Your task to perform on an android device: open chrome privacy settings Image 0: 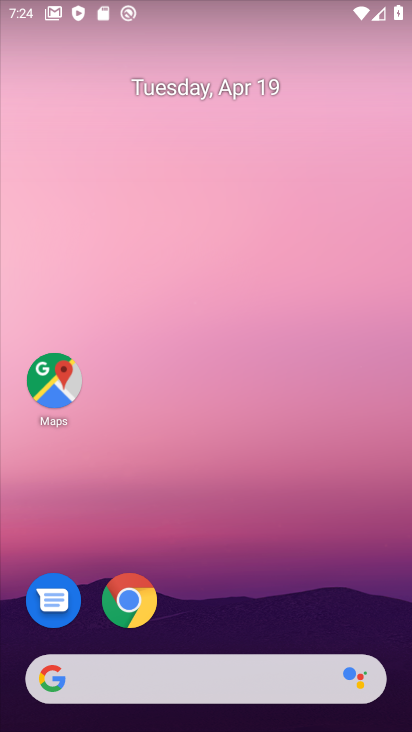
Step 0: drag from (283, 625) to (316, 36)
Your task to perform on an android device: open chrome privacy settings Image 1: 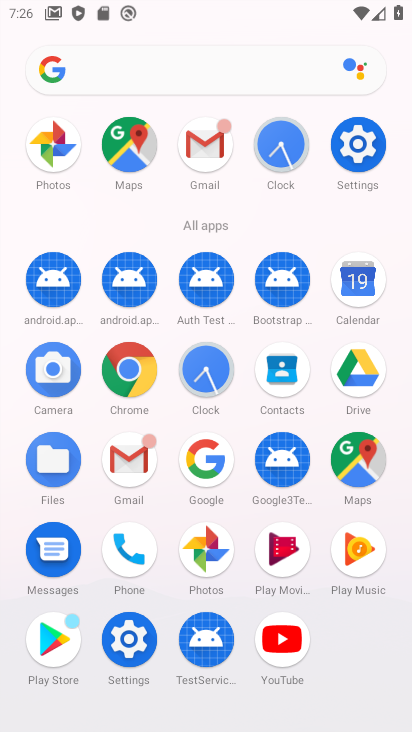
Step 1: click (134, 374)
Your task to perform on an android device: open chrome privacy settings Image 2: 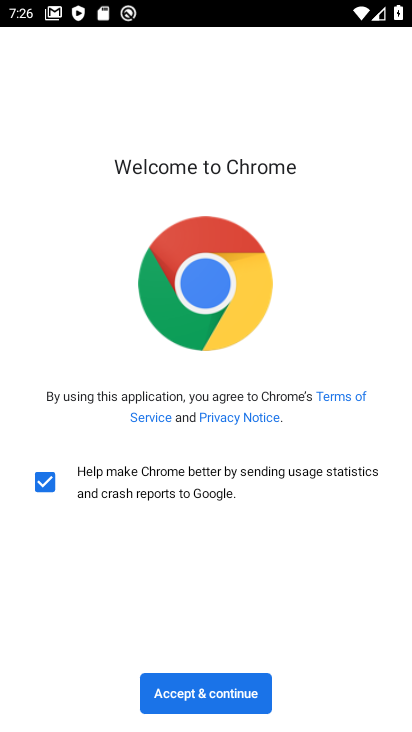
Step 2: click (232, 683)
Your task to perform on an android device: open chrome privacy settings Image 3: 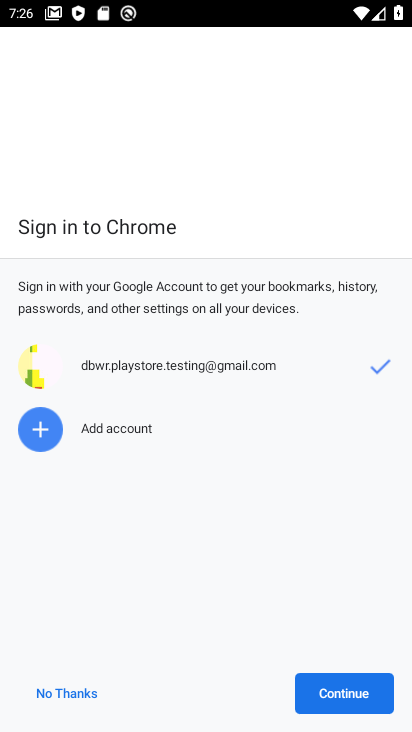
Step 3: click (353, 693)
Your task to perform on an android device: open chrome privacy settings Image 4: 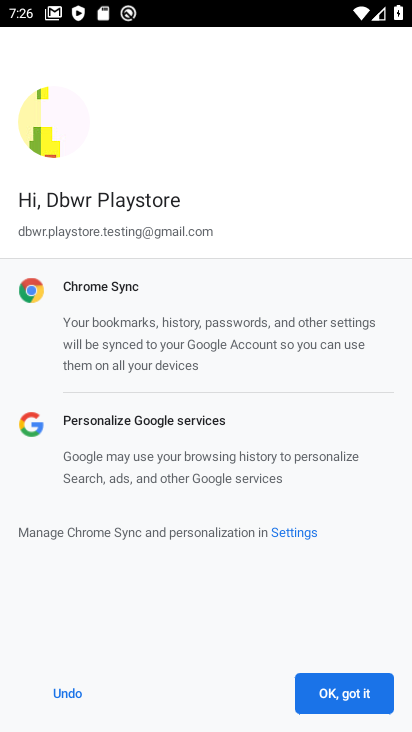
Step 4: click (353, 693)
Your task to perform on an android device: open chrome privacy settings Image 5: 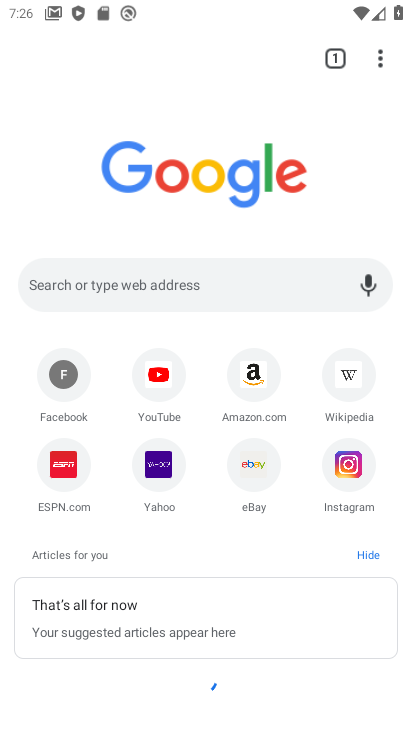
Step 5: click (380, 52)
Your task to perform on an android device: open chrome privacy settings Image 6: 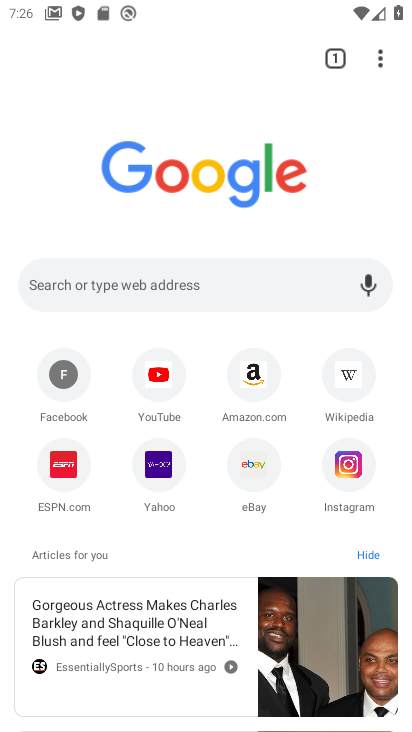
Step 6: click (374, 58)
Your task to perform on an android device: open chrome privacy settings Image 7: 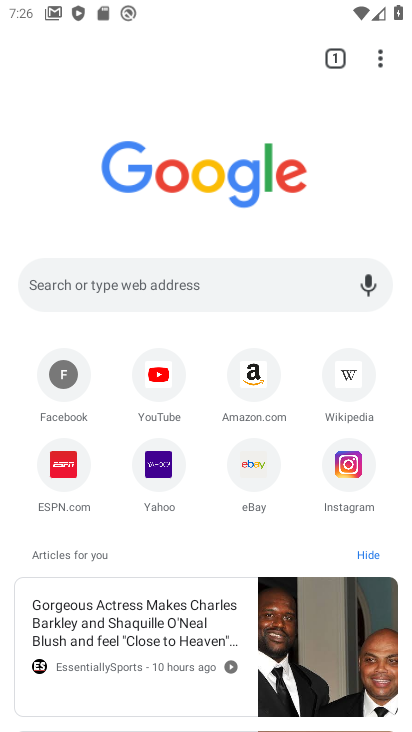
Step 7: click (380, 53)
Your task to perform on an android device: open chrome privacy settings Image 8: 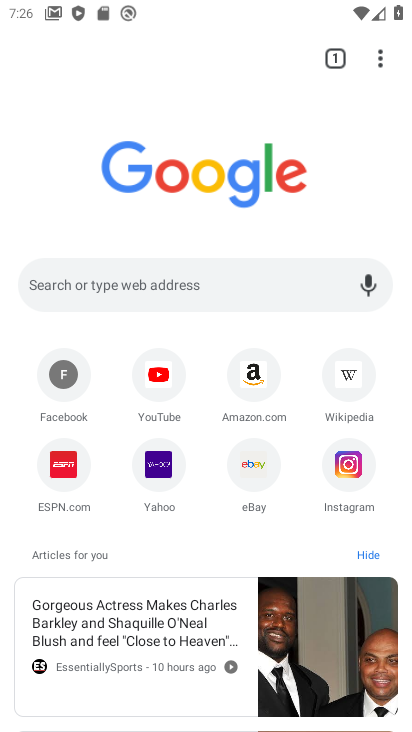
Step 8: click (380, 53)
Your task to perform on an android device: open chrome privacy settings Image 9: 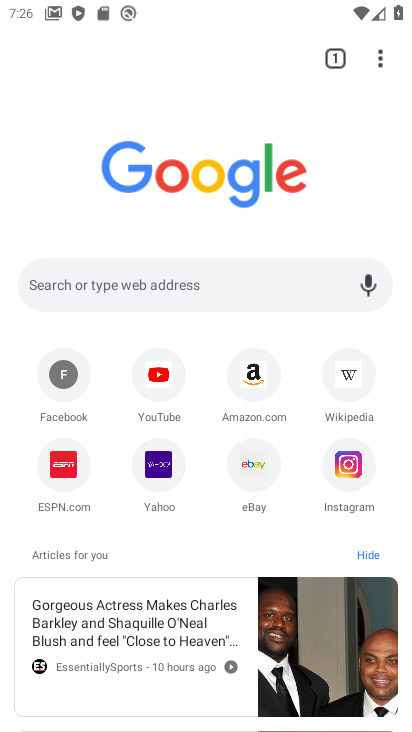
Step 9: click (380, 53)
Your task to perform on an android device: open chrome privacy settings Image 10: 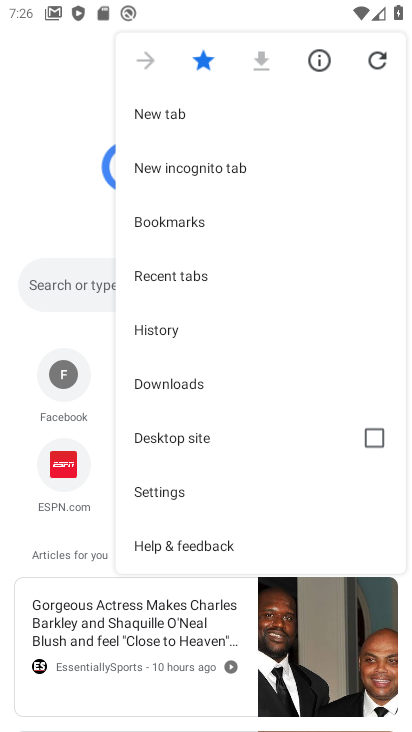
Step 10: click (185, 483)
Your task to perform on an android device: open chrome privacy settings Image 11: 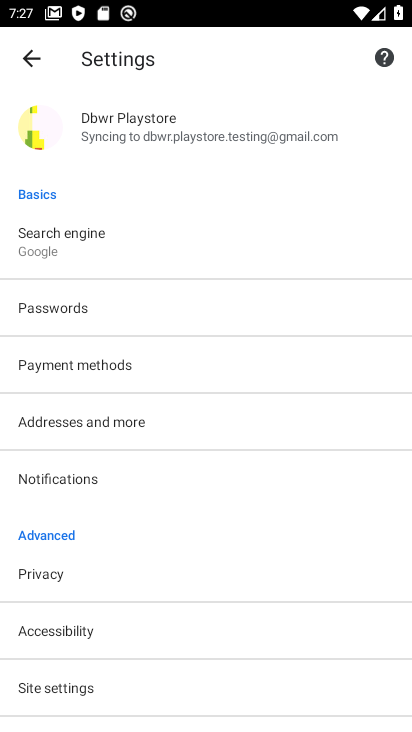
Step 11: click (119, 585)
Your task to perform on an android device: open chrome privacy settings Image 12: 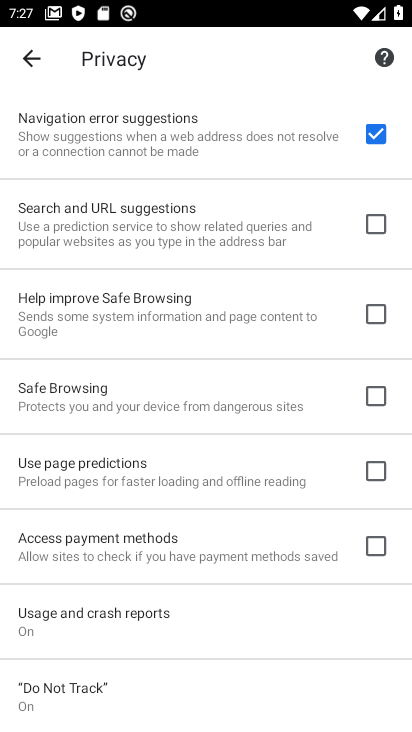
Step 12: task complete